Your task to perform on an android device: turn off priority inbox in the gmail app Image 0: 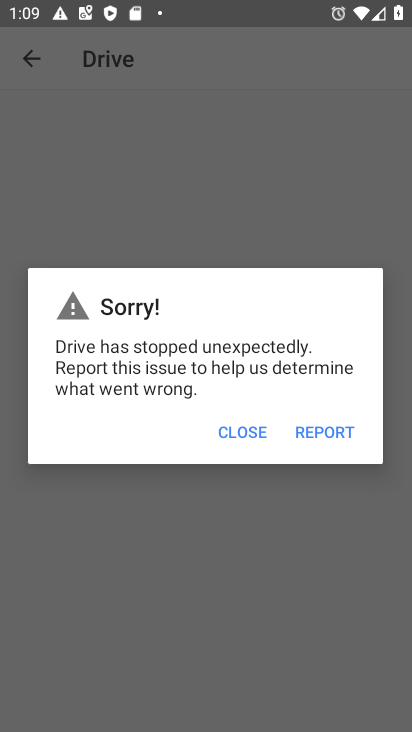
Step 0: press home button
Your task to perform on an android device: turn off priority inbox in the gmail app Image 1: 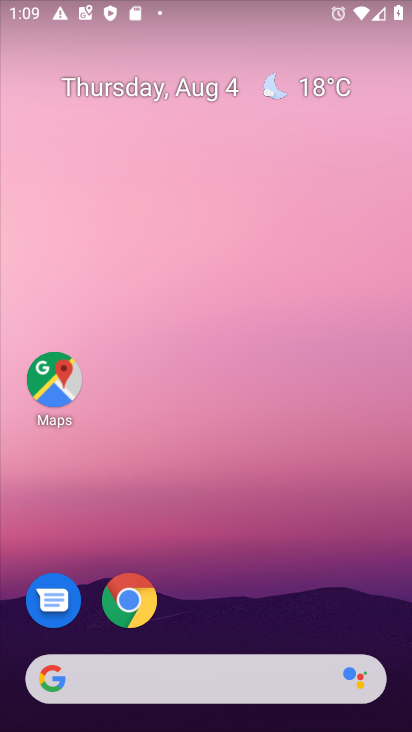
Step 1: drag from (137, 676) to (305, 140)
Your task to perform on an android device: turn off priority inbox in the gmail app Image 2: 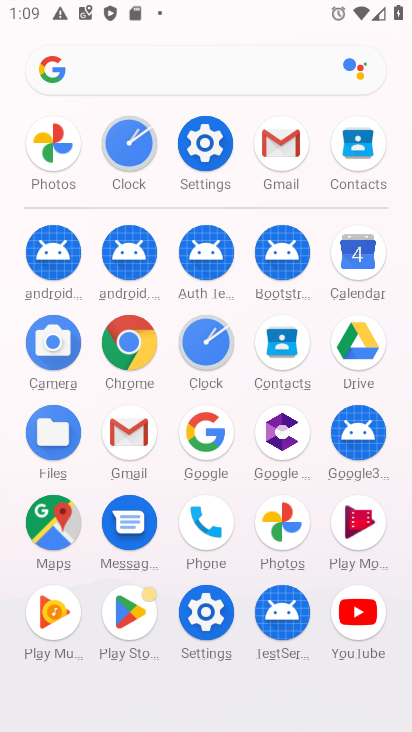
Step 2: click (287, 150)
Your task to perform on an android device: turn off priority inbox in the gmail app Image 3: 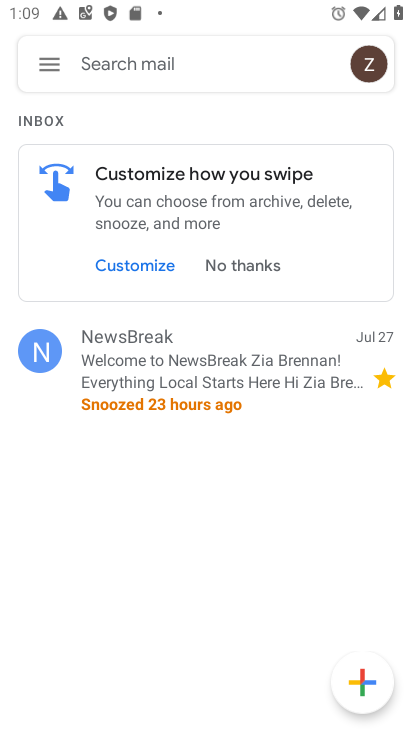
Step 3: click (46, 63)
Your task to perform on an android device: turn off priority inbox in the gmail app Image 4: 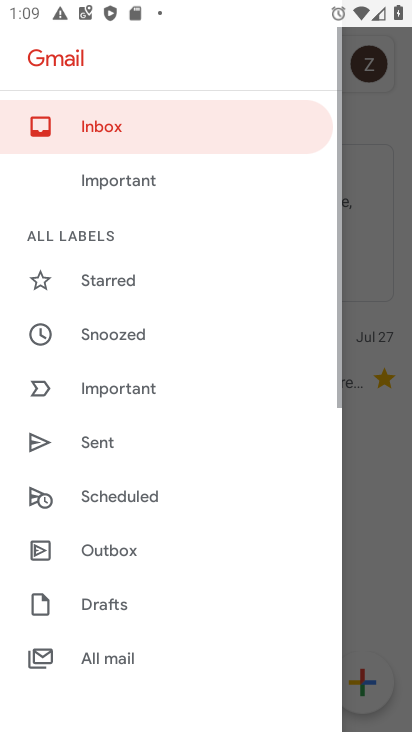
Step 4: drag from (193, 547) to (343, 43)
Your task to perform on an android device: turn off priority inbox in the gmail app Image 5: 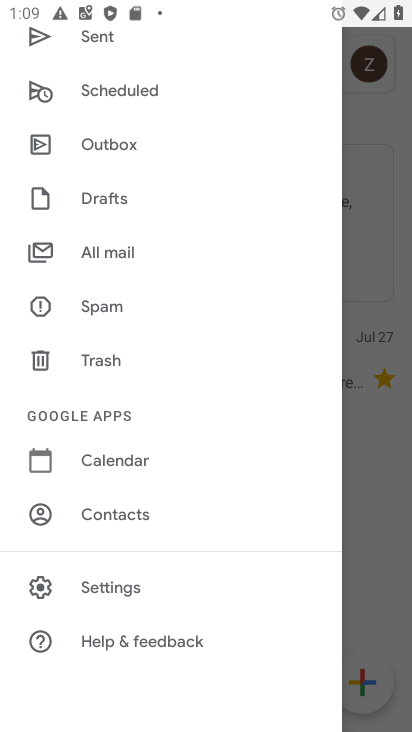
Step 5: click (110, 592)
Your task to perform on an android device: turn off priority inbox in the gmail app Image 6: 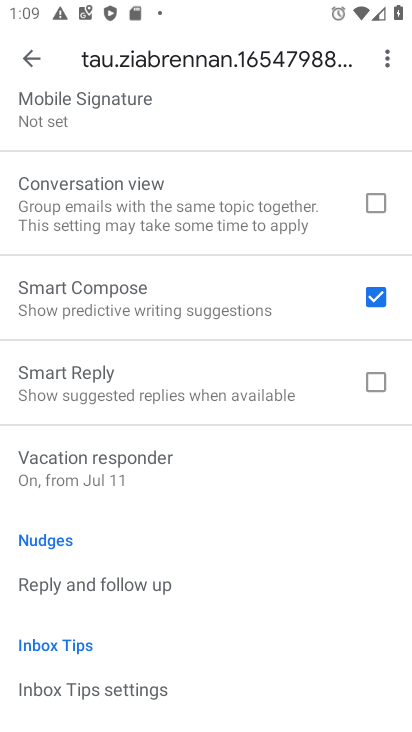
Step 6: drag from (287, 115) to (241, 572)
Your task to perform on an android device: turn off priority inbox in the gmail app Image 7: 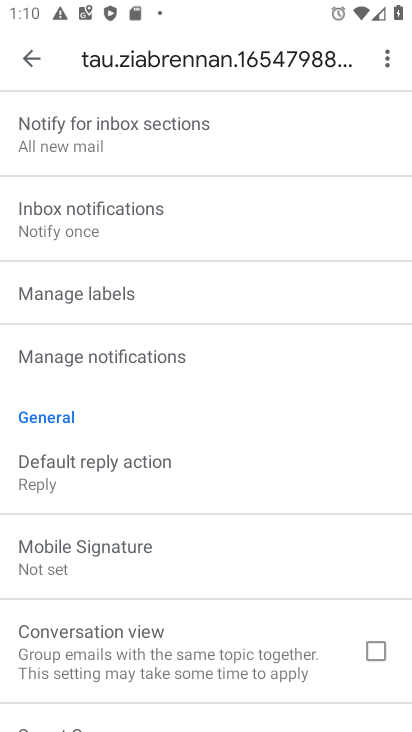
Step 7: drag from (306, 168) to (214, 617)
Your task to perform on an android device: turn off priority inbox in the gmail app Image 8: 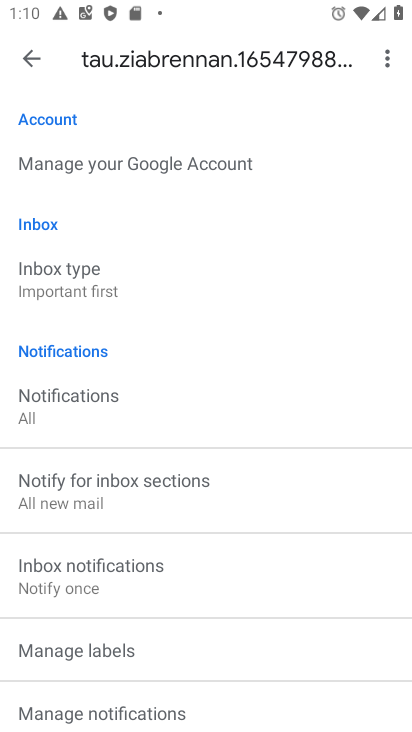
Step 8: click (74, 279)
Your task to perform on an android device: turn off priority inbox in the gmail app Image 9: 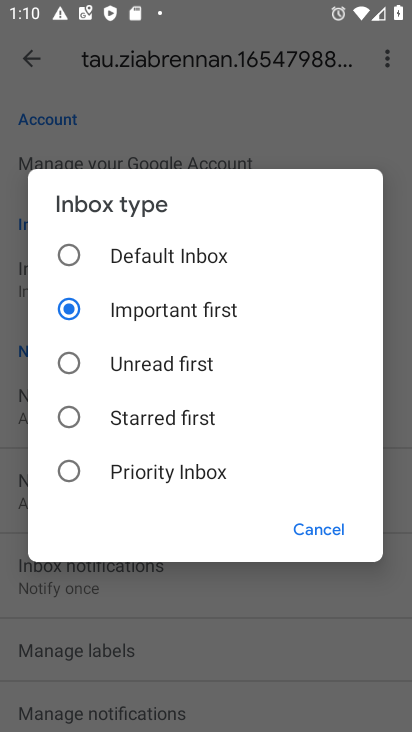
Step 9: click (69, 474)
Your task to perform on an android device: turn off priority inbox in the gmail app Image 10: 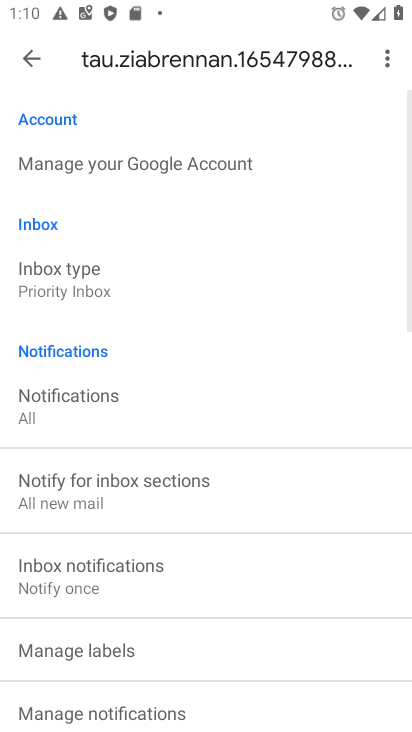
Step 10: click (44, 272)
Your task to perform on an android device: turn off priority inbox in the gmail app Image 11: 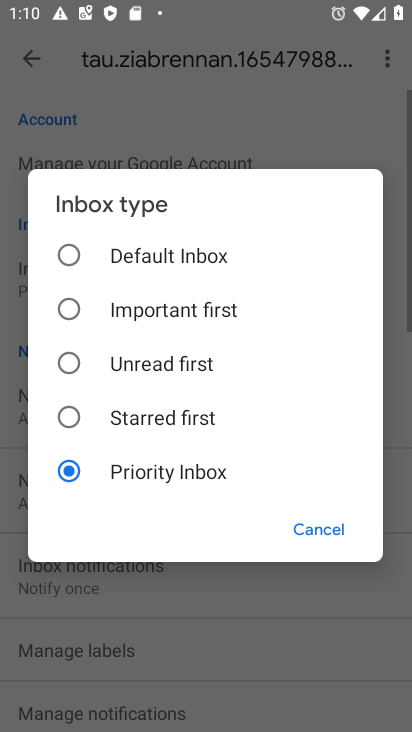
Step 11: click (64, 246)
Your task to perform on an android device: turn off priority inbox in the gmail app Image 12: 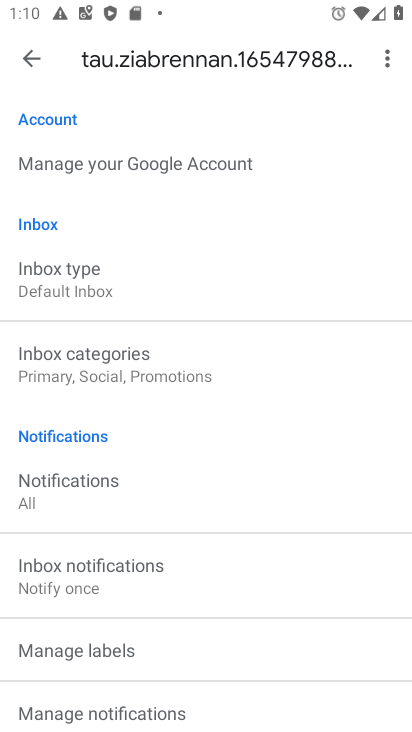
Step 12: task complete